Your task to perform on an android device: delete the emails in spam in the gmail app Image 0: 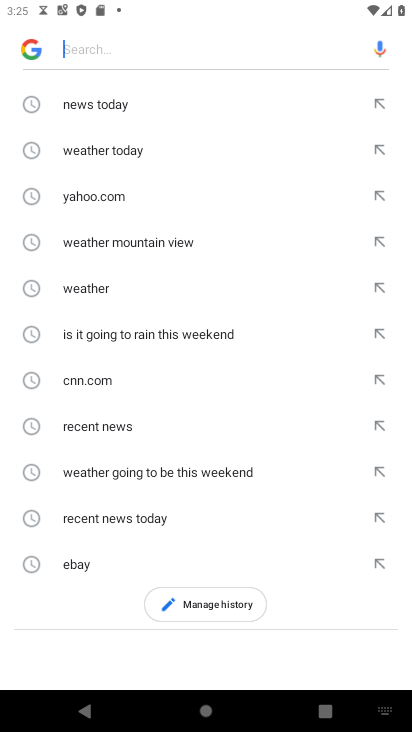
Step 0: press home button
Your task to perform on an android device: delete the emails in spam in the gmail app Image 1: 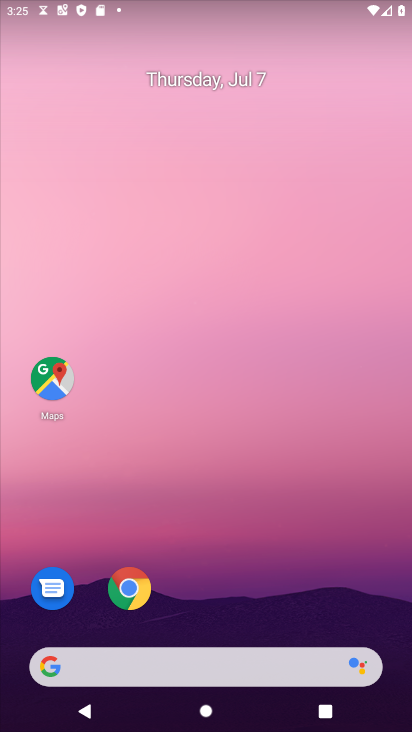
Step 1: drag from (244, 608) to (333, 55)
Your task to perform on an android device: delete the emails in spam in the gmail app Image 2: 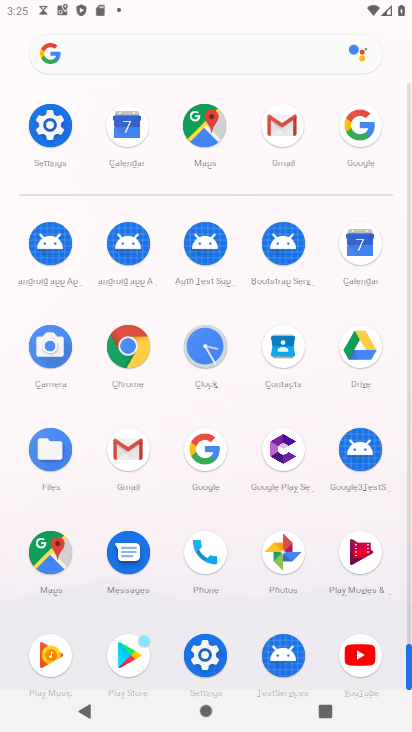
Step 2: click (283, 122)
Your task to perform on an android device: delete the emails in spam in the gmail app Image 3: 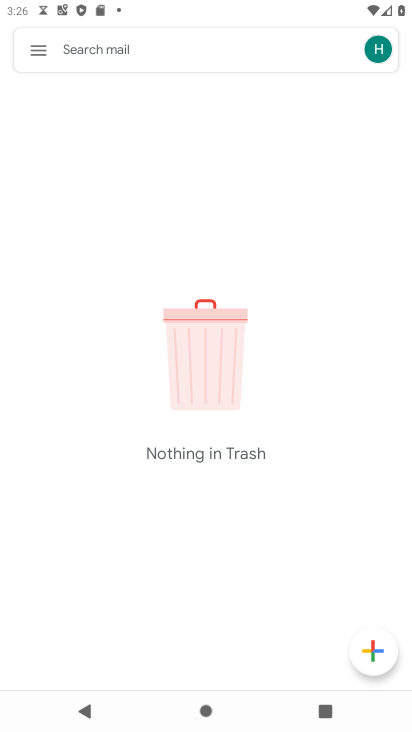
Step 3: click (43, 46)
Your task to perform on an android device: delete the emails in spam in the gmail app Image 4: 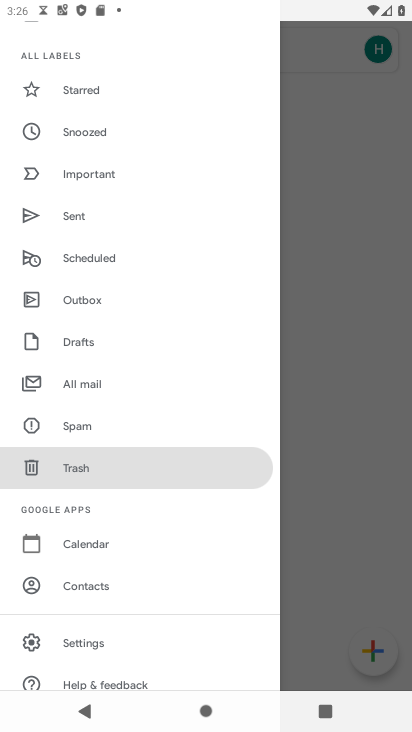
Step 4: click (117, 424)
Your task to perform on an android device: delete the emails in spam in the gmail app Image 5: 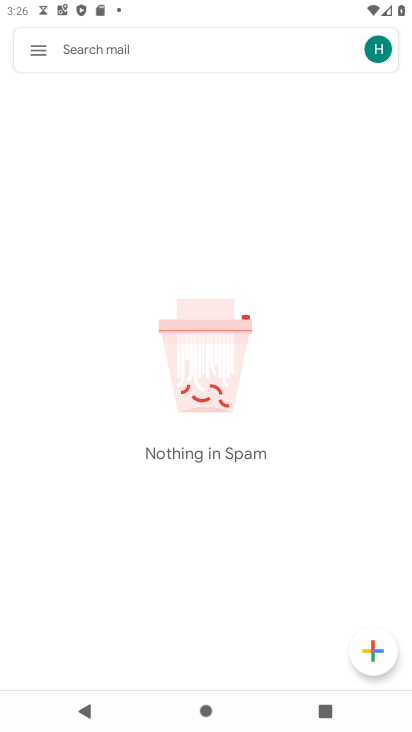
Step 5: task complete